Your task to perform on an android device: stop showing notifications on the lock screen Image 0: 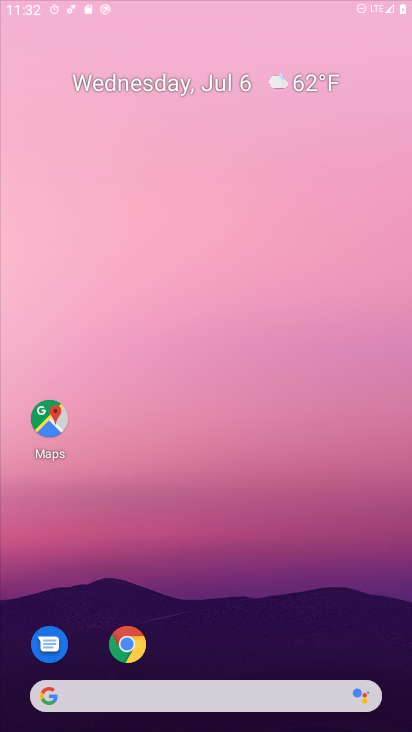
Step 0: press home button
Your task to perform on an android device: stop showing notifications on the lock screen Image 1: 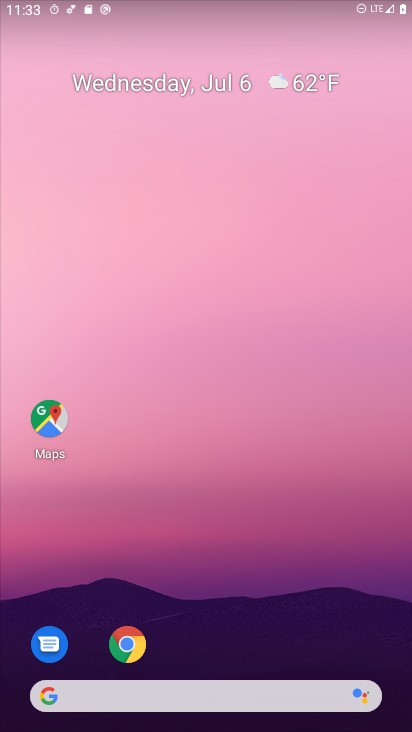
Step 1: drag from (207, 645) to (171, 4)
Your task to perform on an android device: stop showing notifications on the lock screen Image 2: 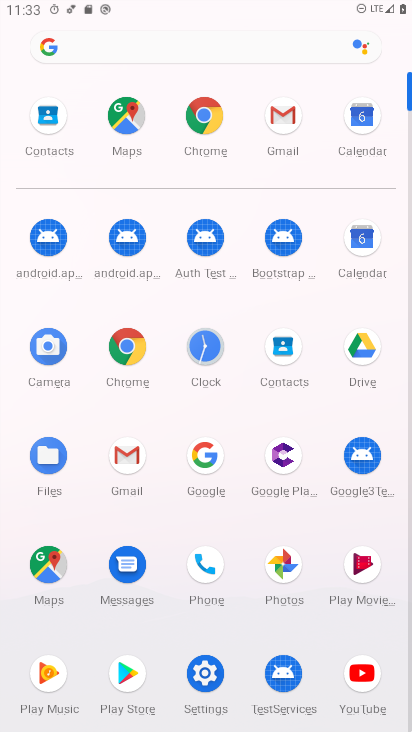
Step 2: drag from (237, 534) to (218, 19)
Your task to perform on an android device: stop showing notifications on the lock screen Image 3: 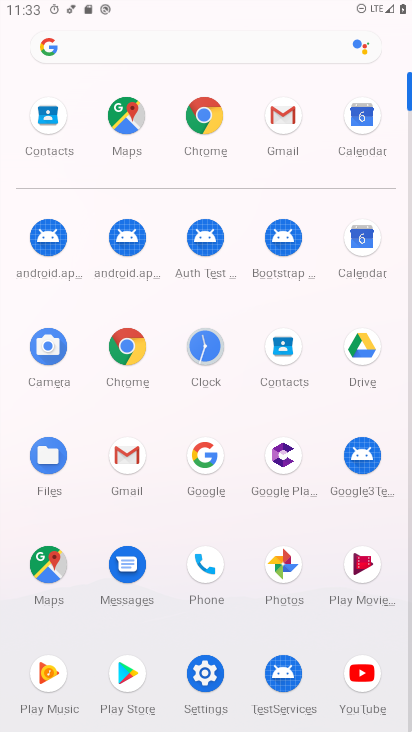
Step 3: click (210, 672)
Your task to perform on an android device: stop showing notifications on the lock screen Image 4: 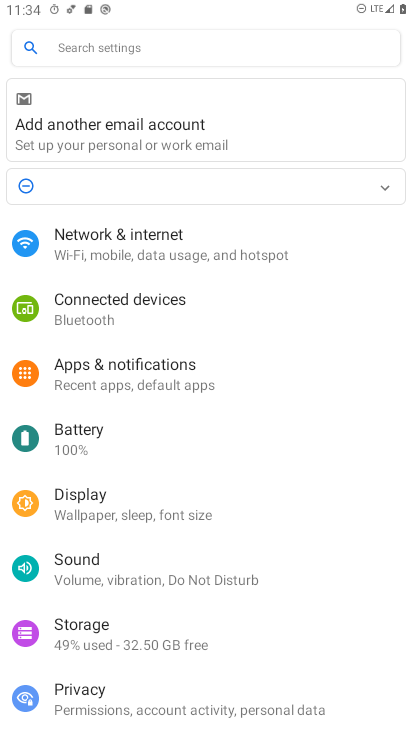
Step 4: click (139, 375)
Your task to perform on an android device: stop showing notifications on the lock screen Image 5: 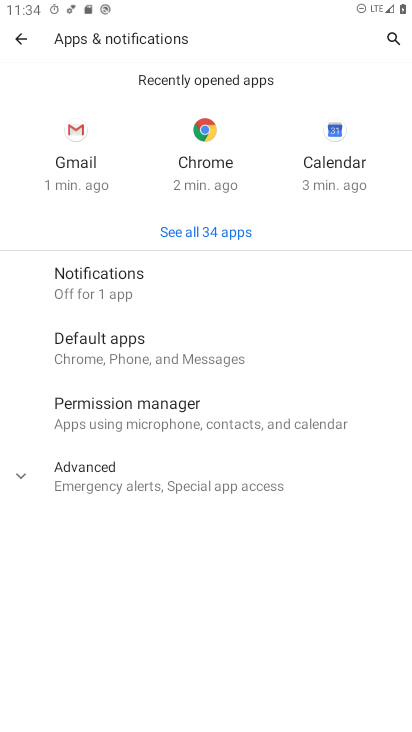
Step 5: click (97, 293)
Your task to perform on an android device: stop showing notifications on the lock screen Image 6: 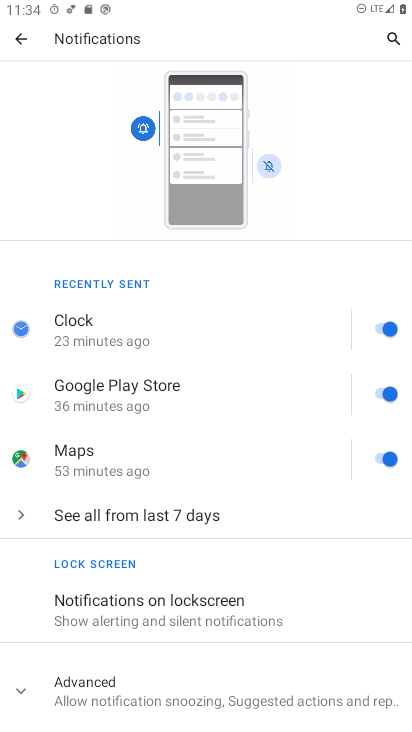
Step 6: click (164, 601)
Your task to perform on an android device: stop showing notifications on the lock screen Image 7: 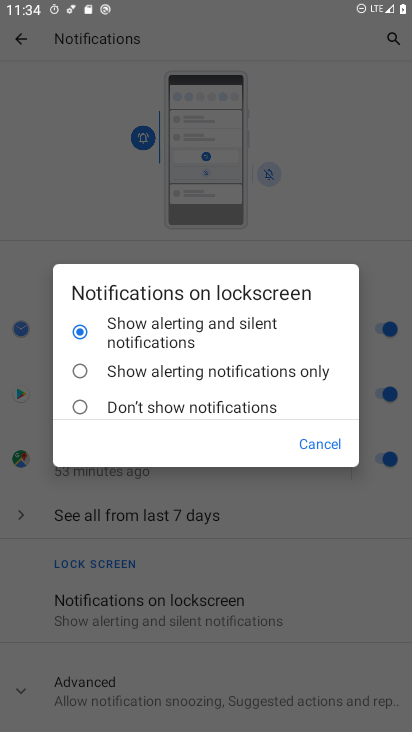
Step 7: click (79, 407)
Your task to perform on an android device: stop showing notifications on the lock screen Image 8: 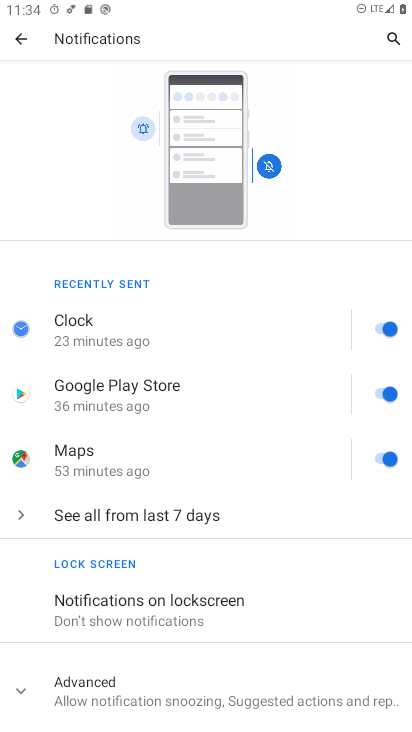
Step 8: task complete